Your task to perform on an android device: Go to accessibility settings Image 0: 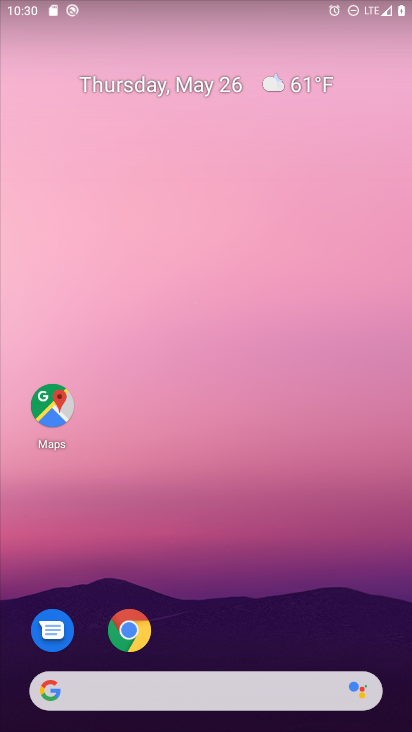
Step 0: drag from (244, 666) to (275, 1)
Your task to perform on an android device: Go to accessibility settings Image 1: 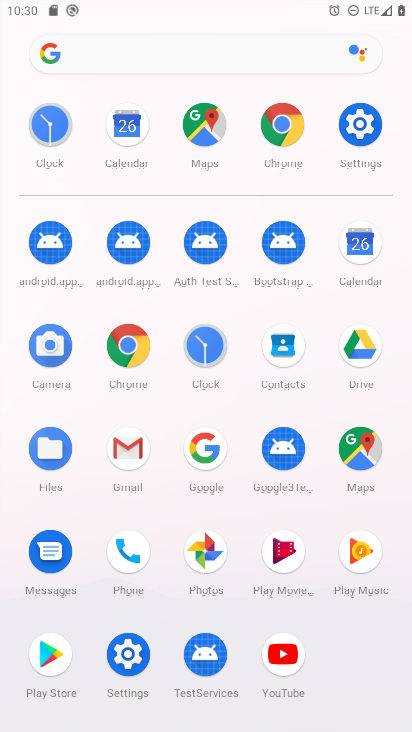
Step 1: click (133, 645)
Your task to perform on an android device: Go to accessibility settings Image 2: 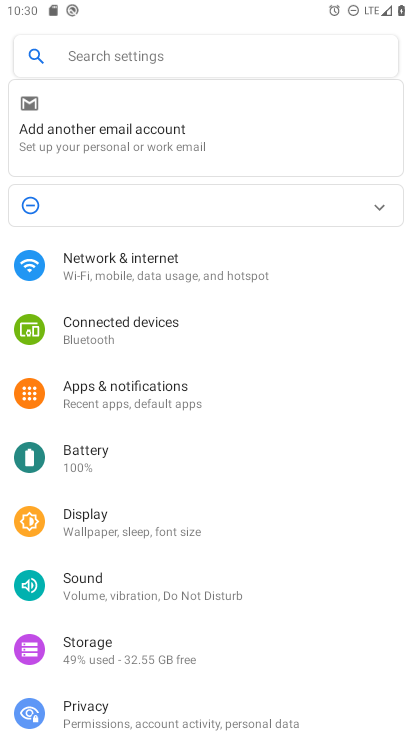
Step 2: drag from (133, 645) to (72, 279)
Your task to perform on an android device: Go to accessibility settings Image 3: 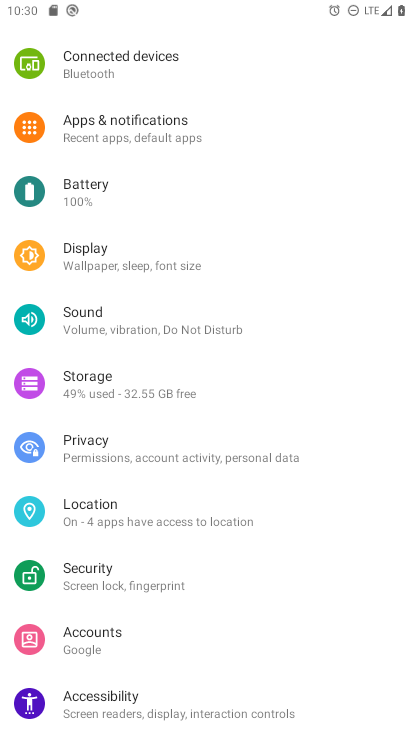
Step 3: click (100, 720)
Your task to perform on an android device: Go to accessibility settings Image 4: 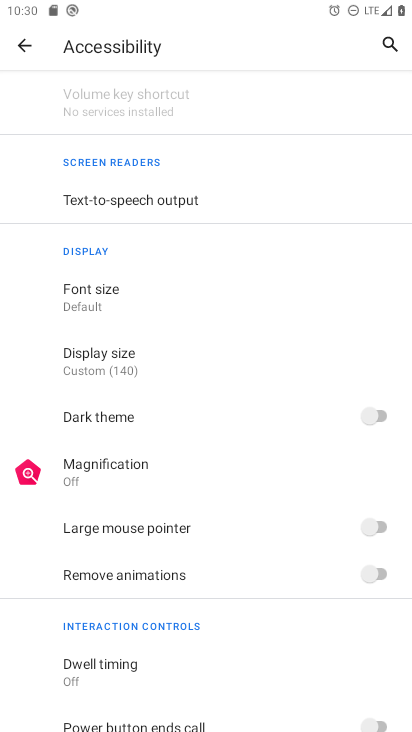
Step 4: task complete